Your task to perform on an android device: change the clock display to show seconds Image 0: 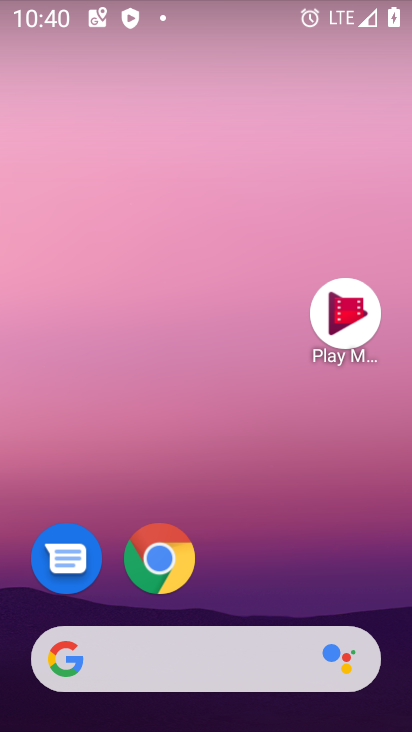
Step 0: drag from (351, 544) to (358, 130)
Your task to perform on an android device: change the clock display to show seconds Image 1: 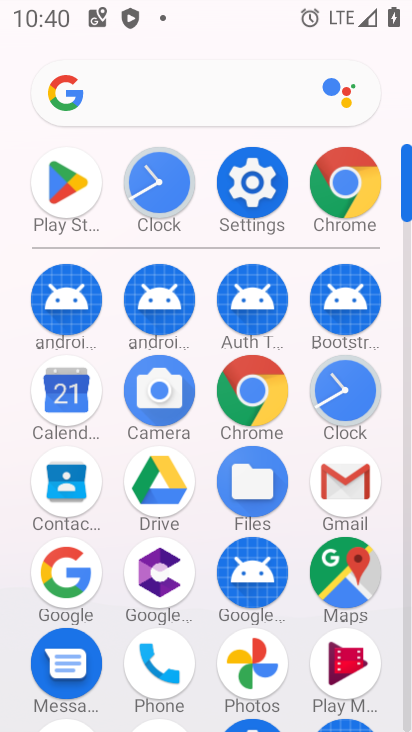
Step 1: click (356, 400)
Your task to perform on an android device: change the clock display to show seconds Image 2: 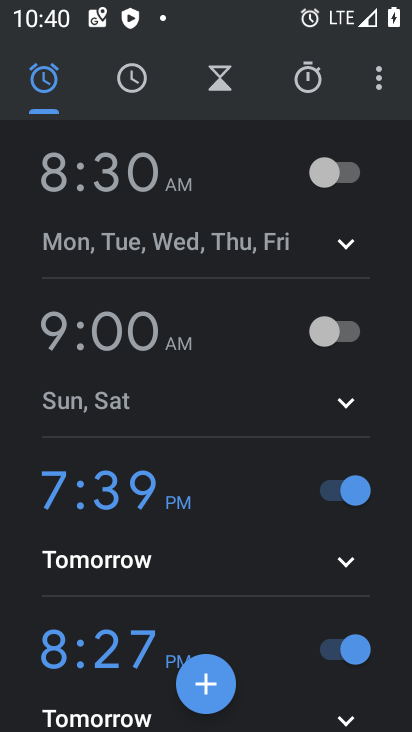
Step 2: click (378, 90)
Your task to perform on an android device: change the clock display to show seconds Image 3: 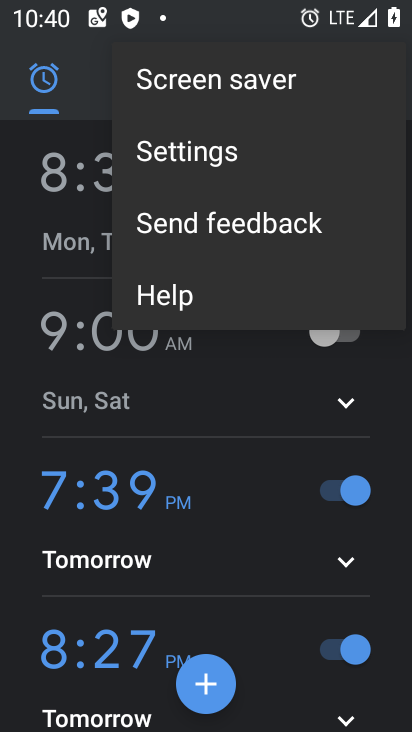
Step 3: click (314, 160)
Your task to perform on an android device: change the clock display to show seconds Image 4: 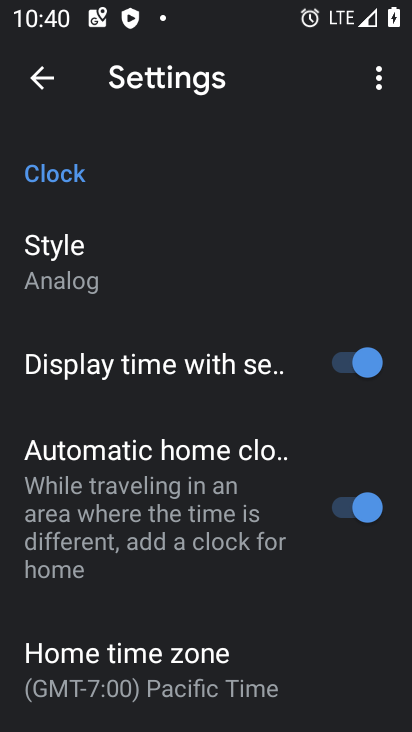
Step 4: task complete